Your task to perform on an android device: Go to display settings Image 0: 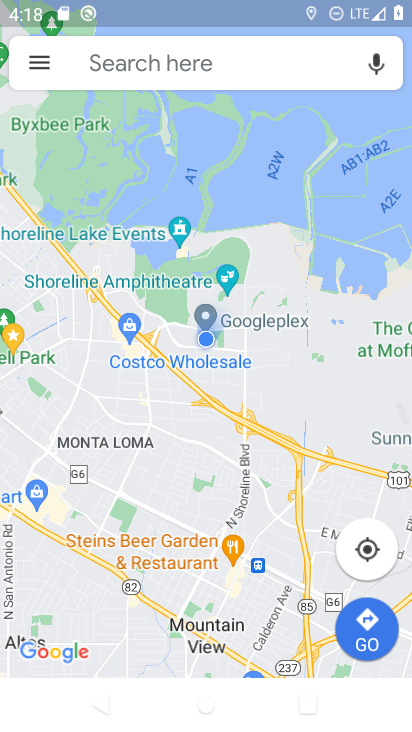
Step 0: press home button
Your task to perform on an android device: Go to display settings Image 1: 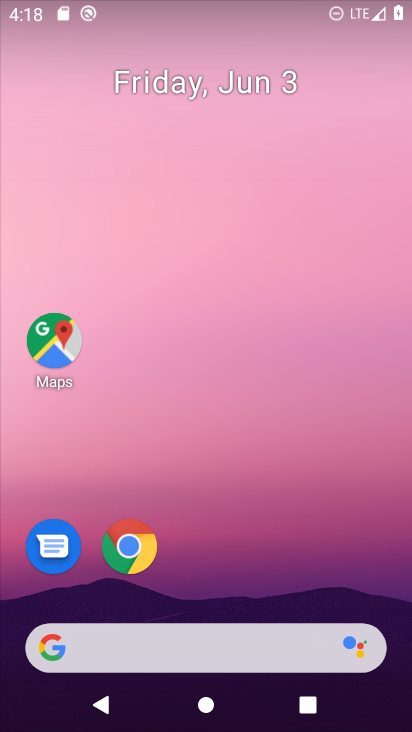
Step 1: drag from (250, 567) to (295, 23)
Your task to perform on an android device: Go to display settings Image 2: 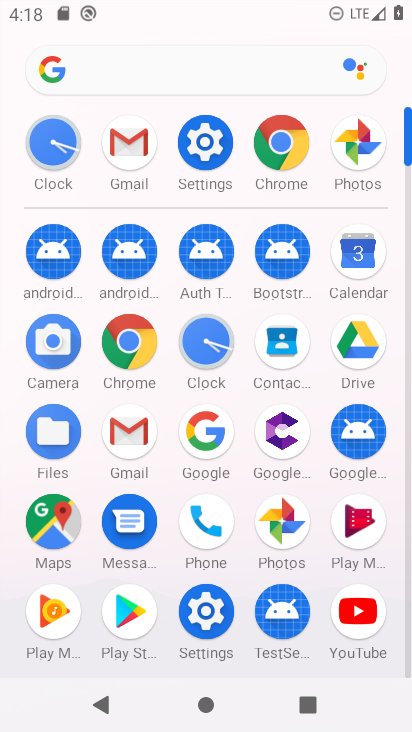
Step 2: click (205, 154)
Your task to perform on an android device: Go to display settings Image 3: 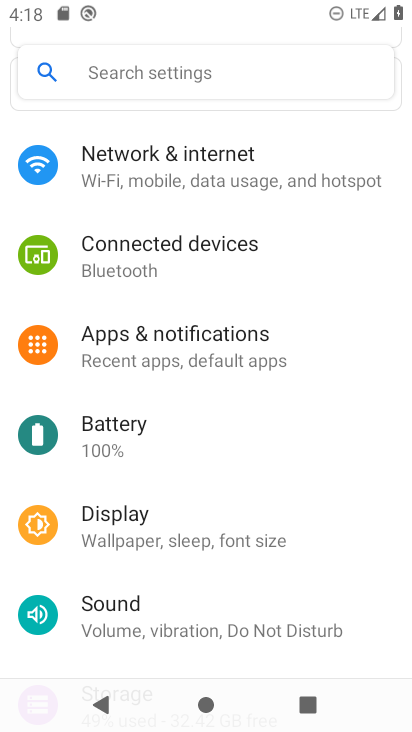
Step 3: click (176, 532)
Your task to perform on an android device: Go to display settings Image 4: 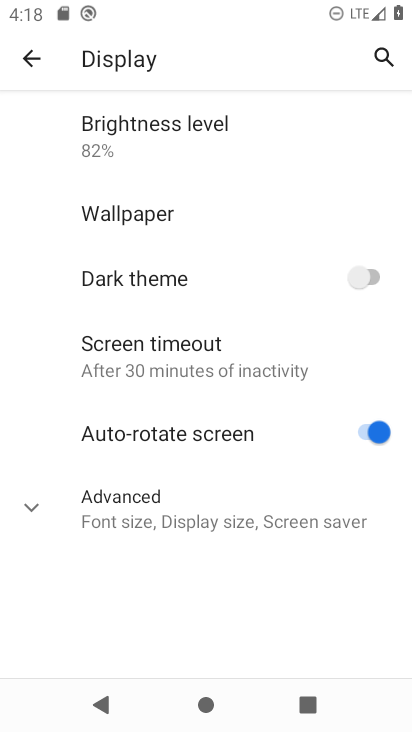
Step 4: task complete